Your task to perform on an android device: Open Reddit.com Image 0: 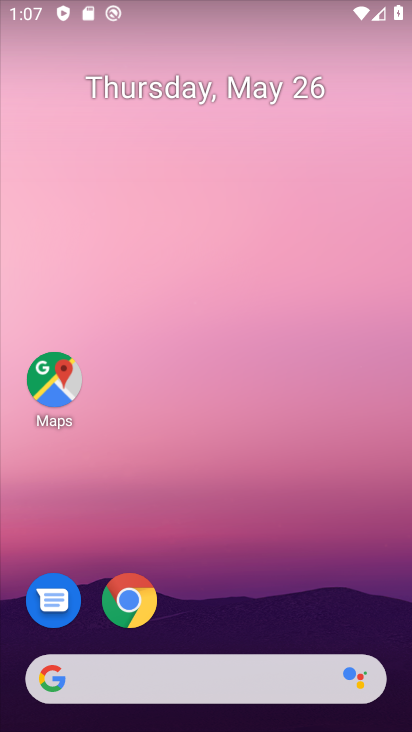
Step 0: click (135, 603)
Your task to perform on an android device: Open Reddit.com Image 1: 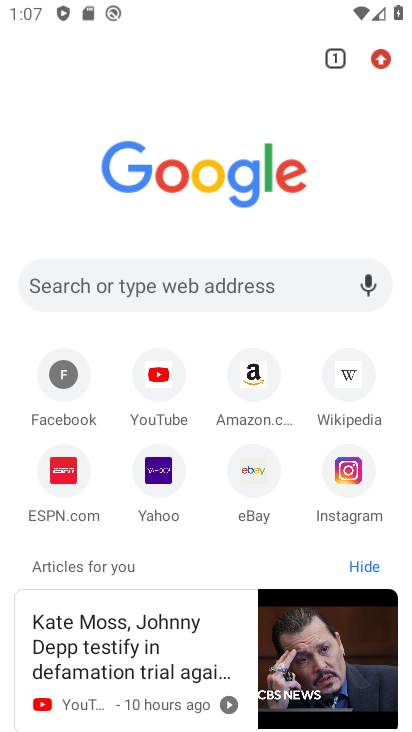
Step 1: click (105, 283)
Your task to perform on an android device: Open Reddit.com Image 2: 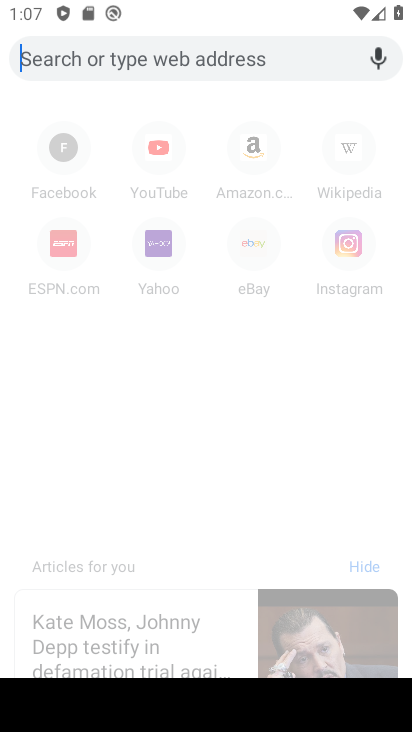
Step 2: type "Reddit.com"
Your task to perform on an android device: Open Reddit.com Image 3: 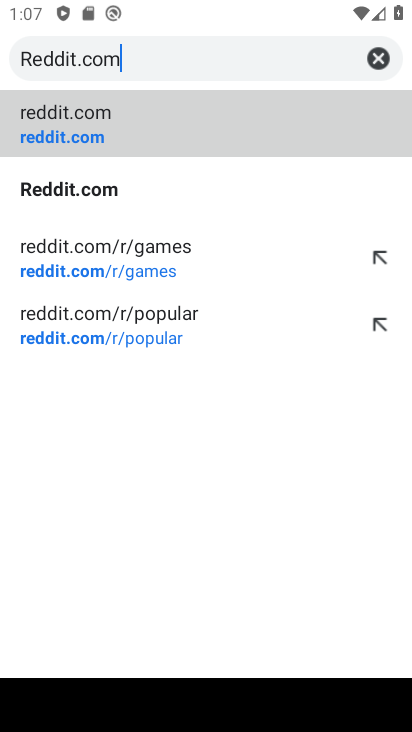
Step 3: click (279, 141)
Your task to perform on an android device: Open Reddit.com Image 4: 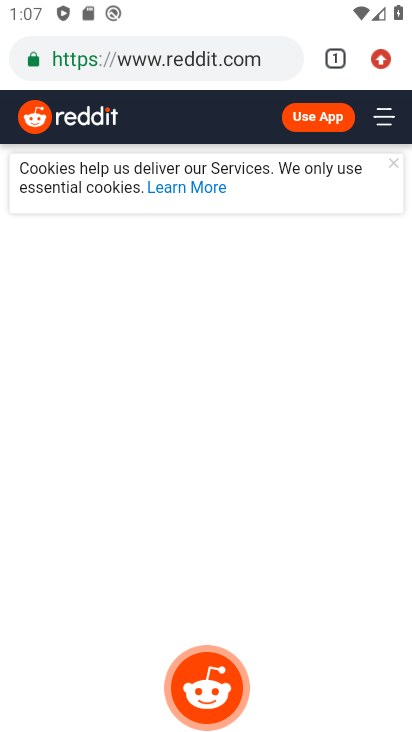
Step 4: task complete